Your task to perform on an android device: Open Wikipedia Image 0: 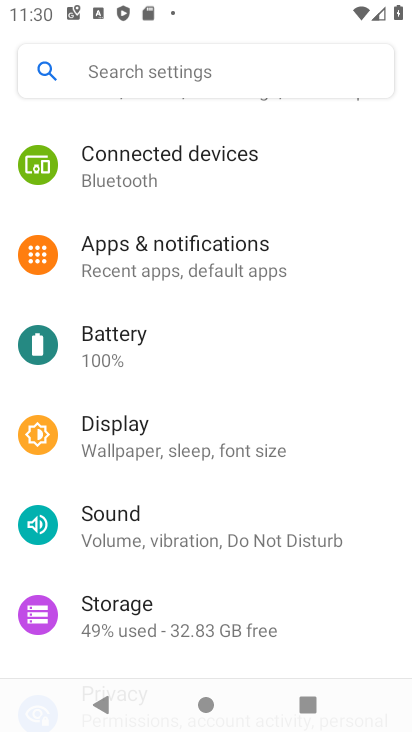
Step 0: press home button
Your task to perform on an android device: Open Wikipedia Image 1: 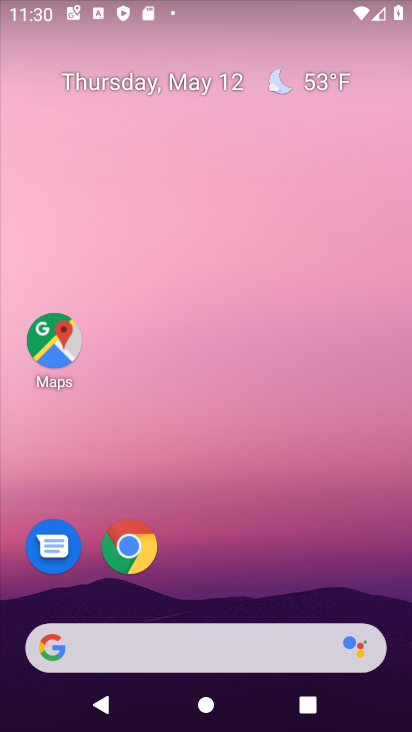
Step 1: drag from (216, 679) to (205, 226)
Your task to perform on an android device: Open Wikipedia Image 2: 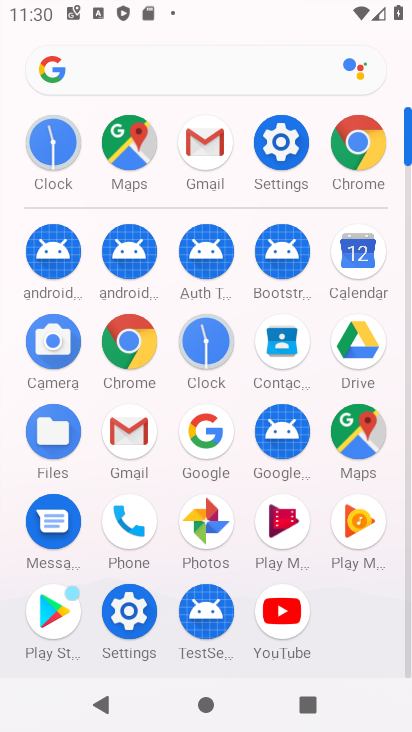
Step 2: click (368, 153)
Your task to perform on an android device: Open Wikipedia Image 3: 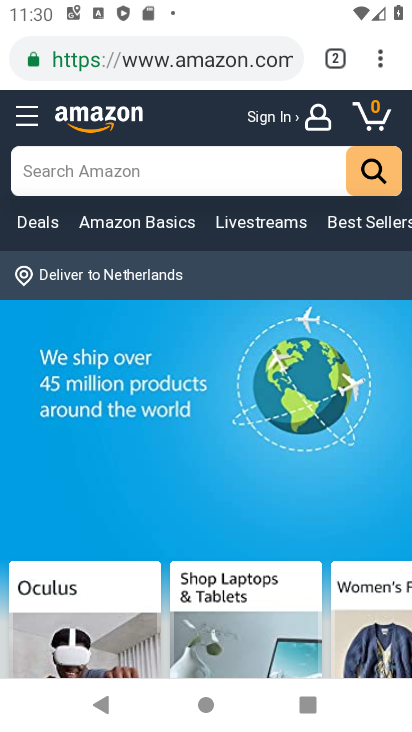
Step 3: click (372, 65)
Your task to perform on an android device: Open Wikipedia Image 4: 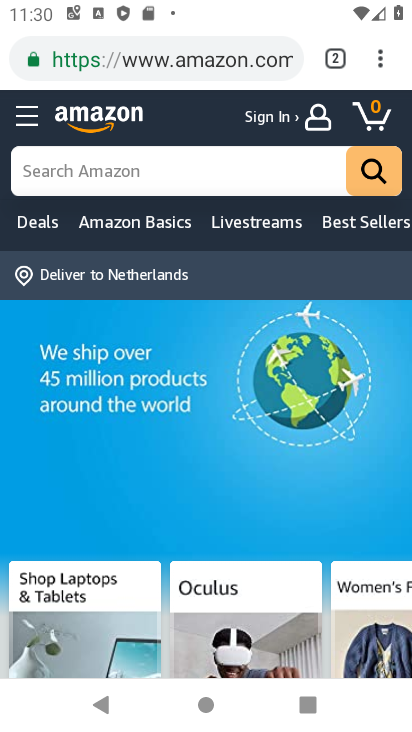
Step 4: click (361, 86)
Your task to perform on an android device: Open Wikipedia Image 5: 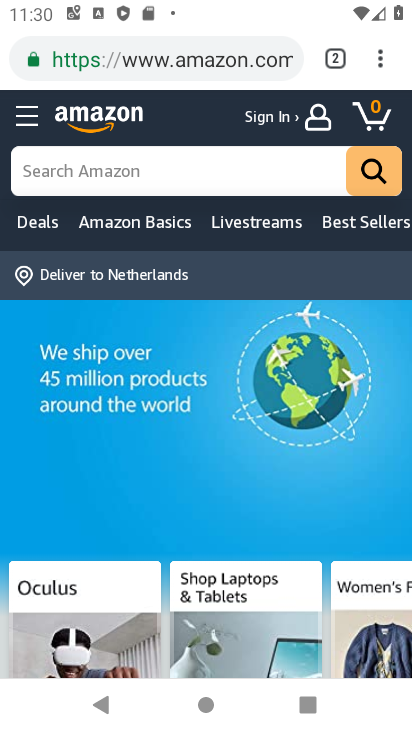
Step 5: click (370, 64)
Your task to perform on an android device: Open Wikipedia Image 6: 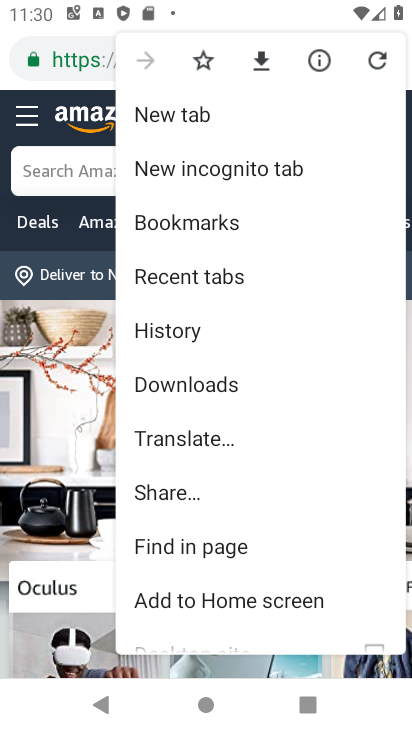
Step 6: drag from (165, 582) to (187, 656)
Your task to perform on an android device: Open Wikipedia Image 7: 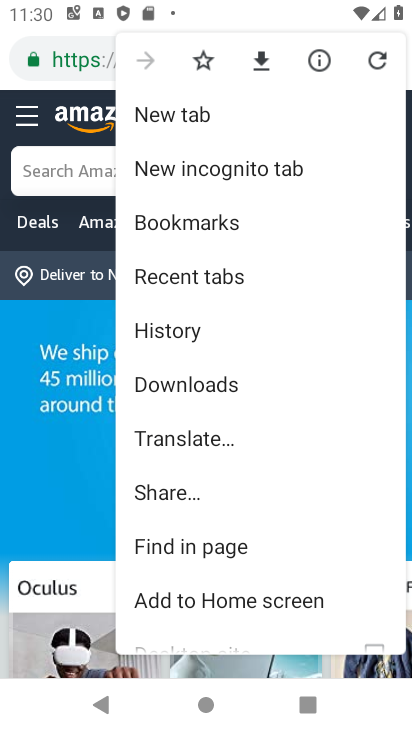
Step 7: click (202, 118)
Your task to perform on an android device: Open Wikipedia Image 8: 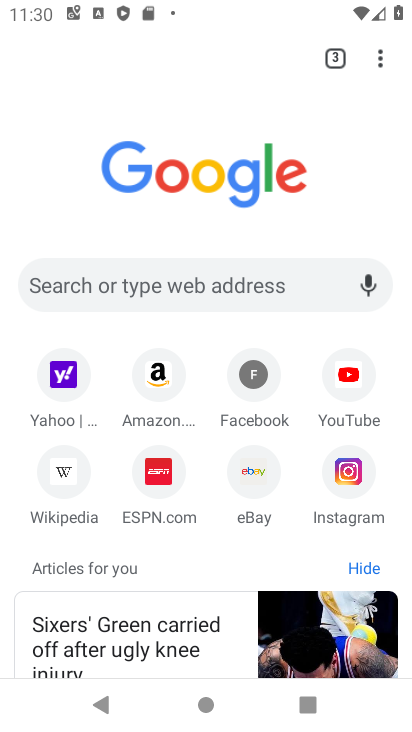
Step 8: click (50, 488)
Your task to perform on an android device: Open Wikipedia Image 9: 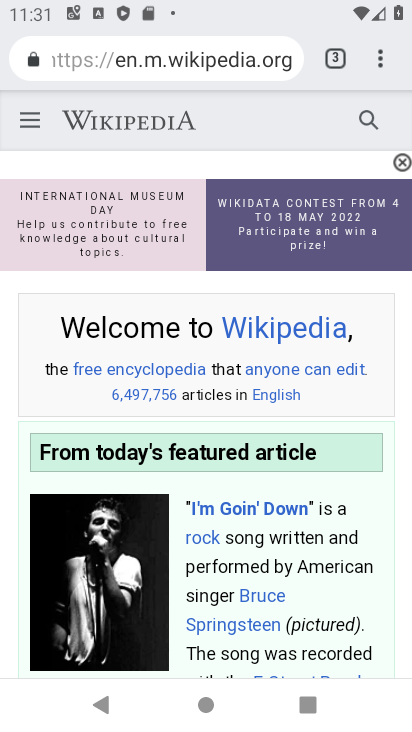
Step 9: task complete